Your task to perform on an android device: toggle javascript in the chrome app Image 0: 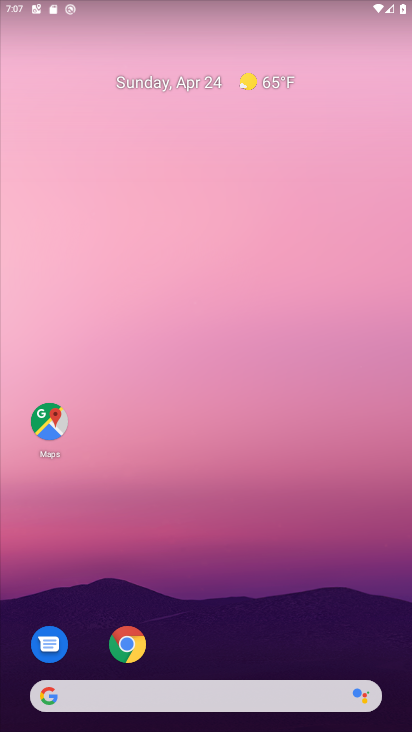
Step 0: drag from (237, 656) to (221, 103)
Your task to perform on an android device: toggle javascript in the chrome app Image 1: 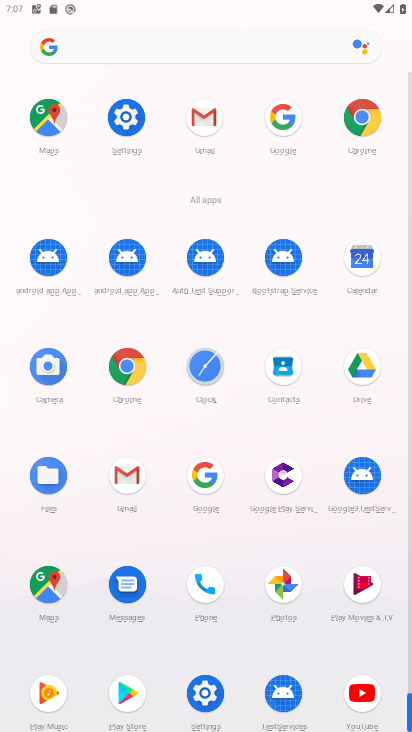
Step 1: click (127, 356)
Your task to perform on an android device: toggle javascript in the chrome app Image 2: 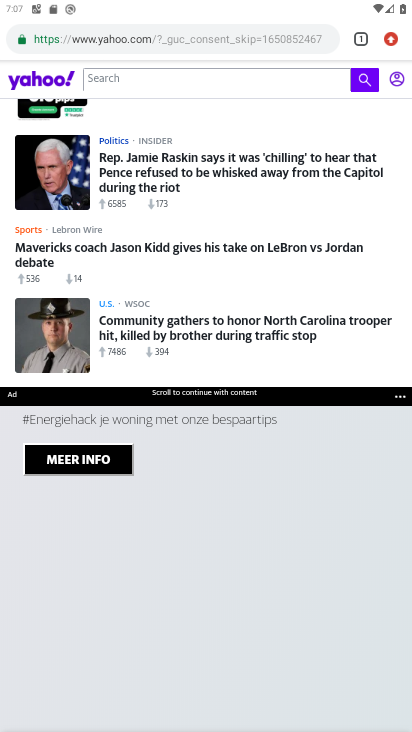
Step 2: click (387, 34)
Your task to perform on an android device: toggle javascript in the chrome app Image 3: 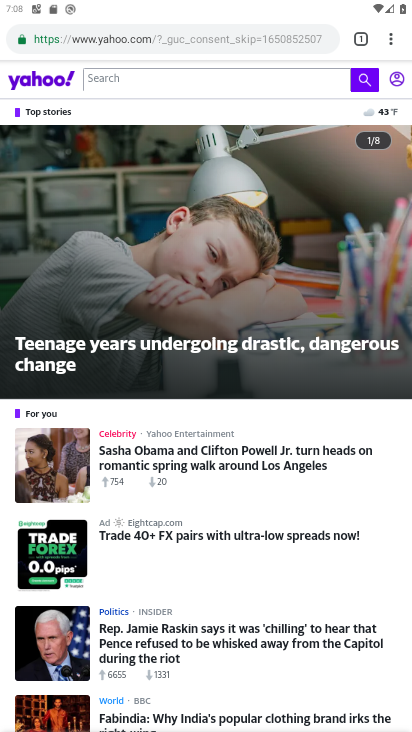
Step 3: click (389, 41)
Your task to perform on an android device: toggle javascript in the chrome app Image 4: 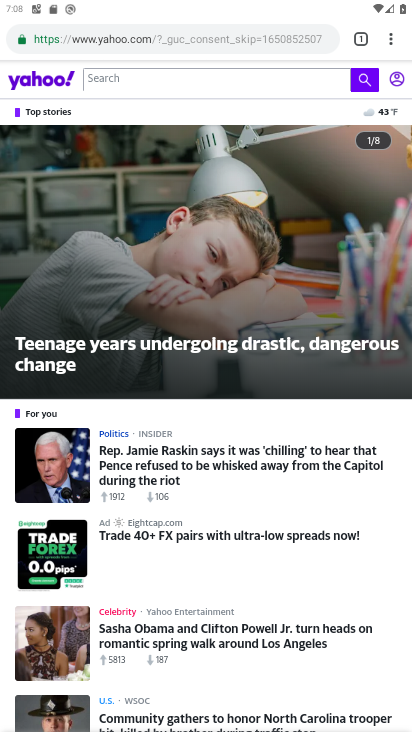
Step 4: click (391, 36)
Your task to perform on an android device: toggle javascript in the chrome app Image 5: 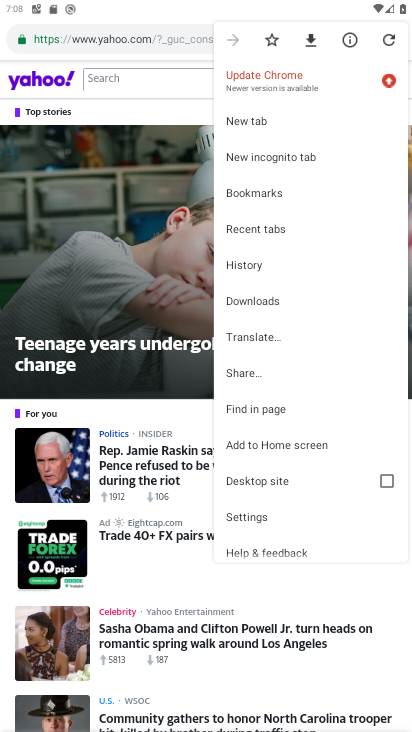
Step 5: click (274, 516)
Your task to perform on an android device: toggle javascript in the chrome app Image 6: 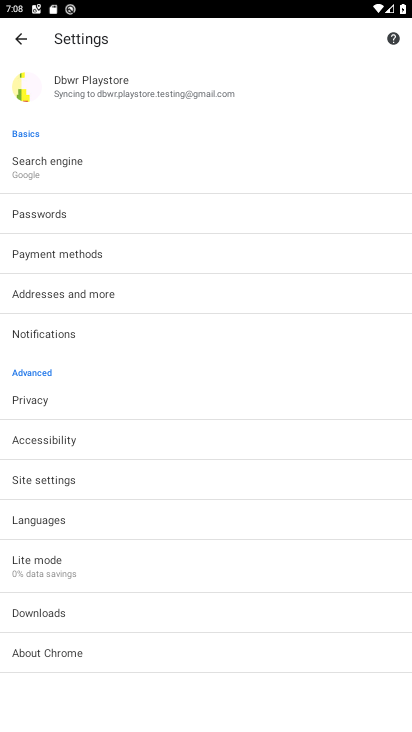
Step 6: click (81, 478)
Your task to perform on an android device: toggle javascript in the chrome app Image 7: 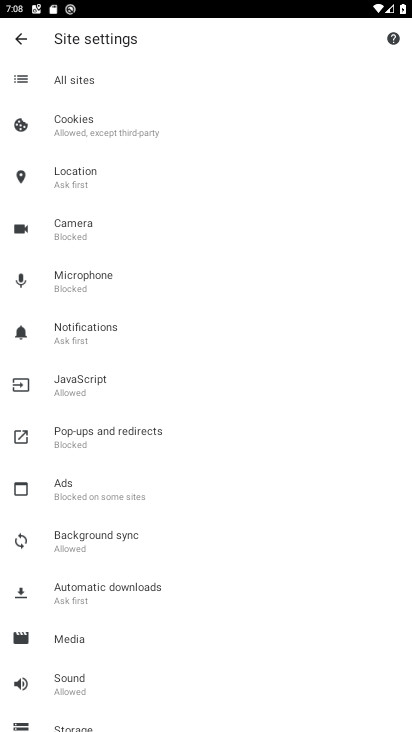
Step 7: click (110, 381)
Your task to perform on an android device: toggle javascript in the chrome app Image 8: 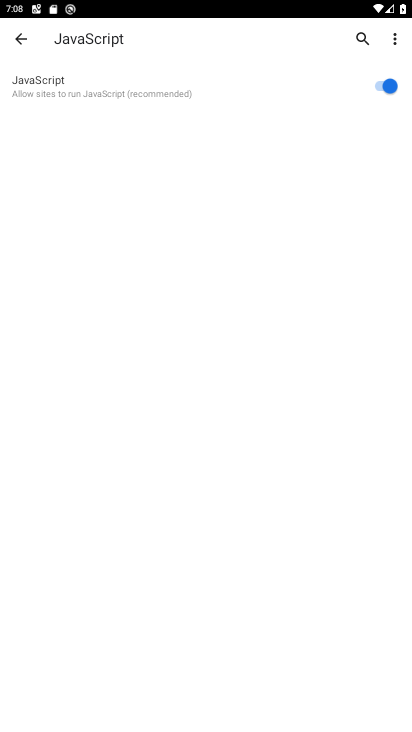
Step 8: click (381, 85)
Your task to perform on an android device: toggle javascript in the chrome app Image 9: 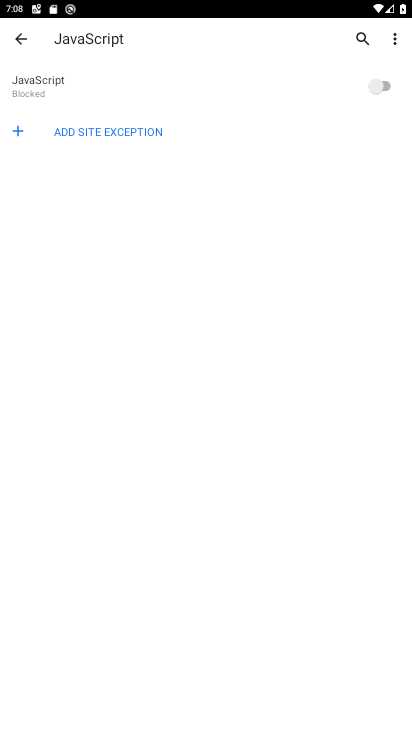
Step 9: task complete